Your task to perform on an android device: Open battery settings Image 0: 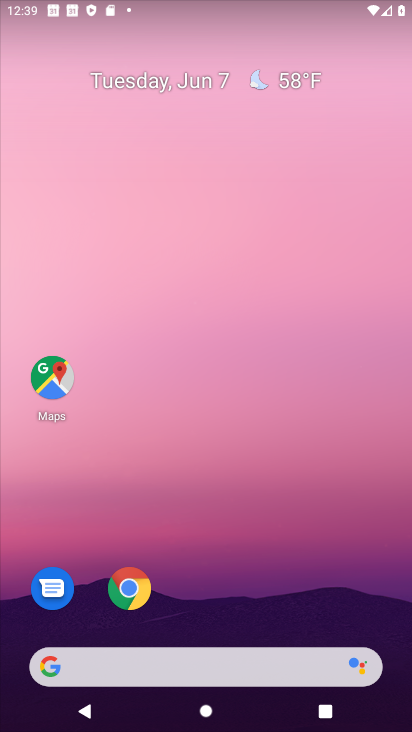
Step 0: drag from (270, 592) to (362, 0)
Your task to perform on an android device: Open battery settings Image 1: 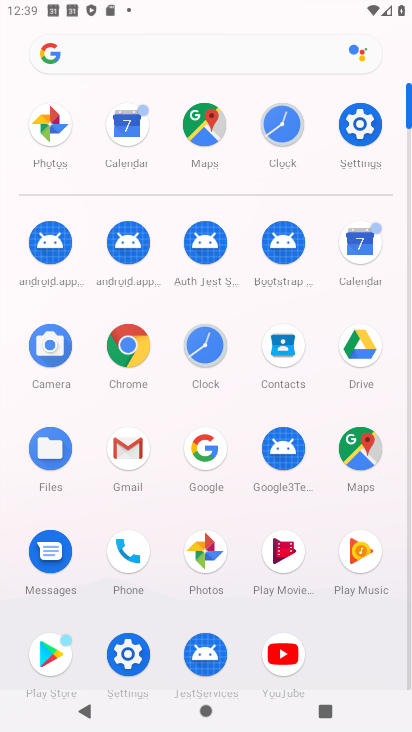
Step 1: click (355, 140)
Your task to perform on an android device: Open battery settings Image 2: 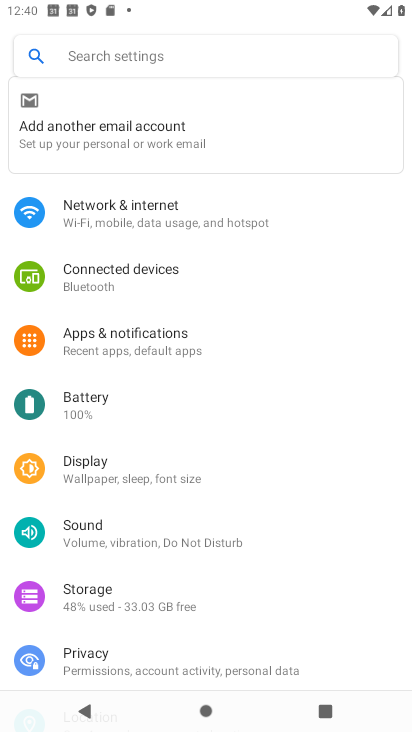
Step 2: click (135, 407)
Your task to perform on an android device: Open battery settings Image 3: 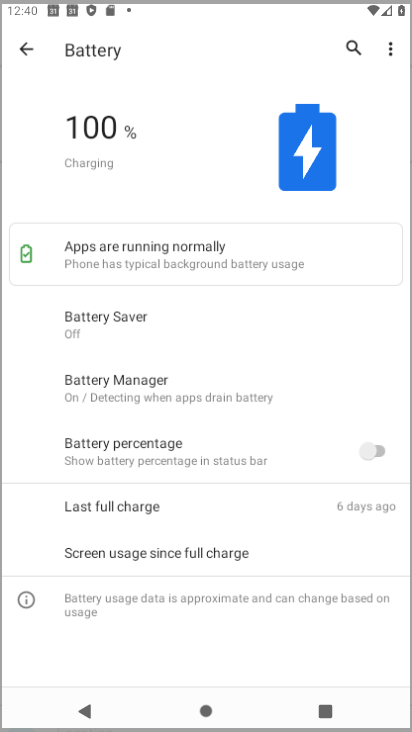
Step 3: task complete